Your task to perform on an android device: Open Chrome and go to settings Image 0: 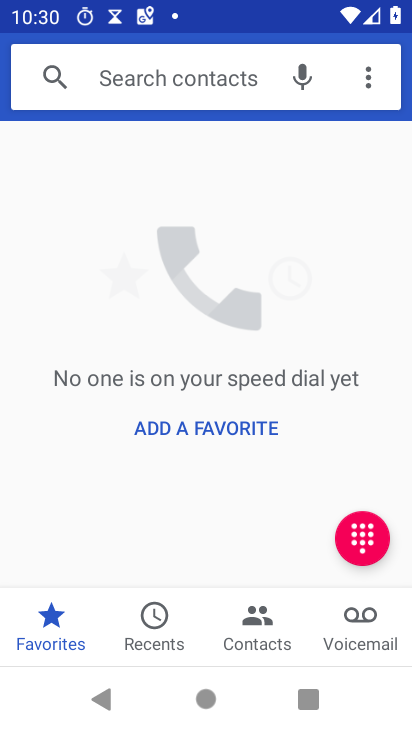
Step 0: press home button
Your task to perform on an android device: Open Chrome and go to settings Image 1: 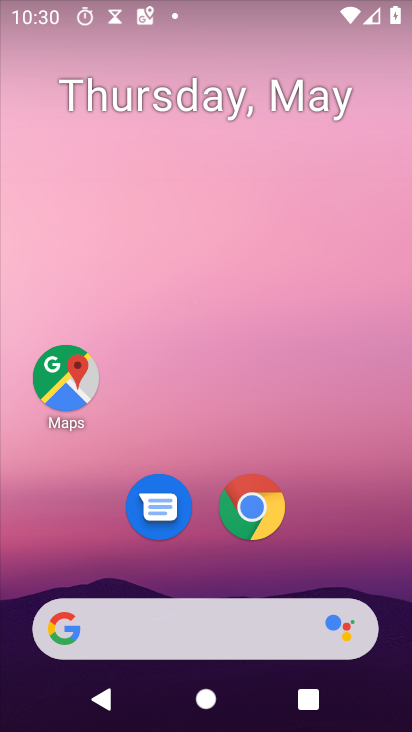
Step 1: click (249, 522)
Your task to perform on an android device: Open Chrome and go to settings Image 2: 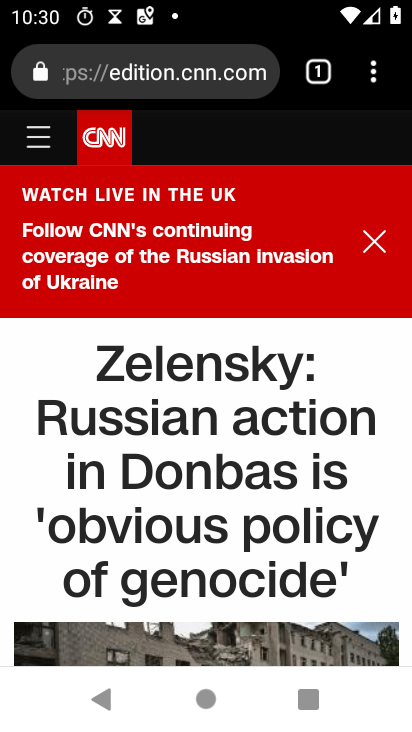
Step 2: click (377, 73)
Your task to perform on an android device: Open Chrome and go to settings Image 3: 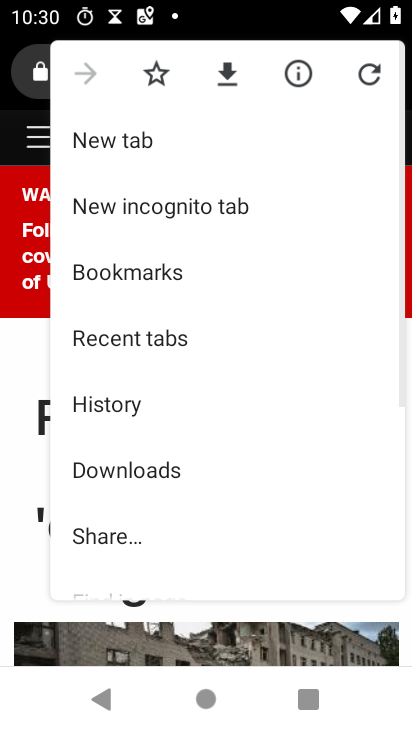
Step 3: drag from (231, 533) to (238, 157)
Your task to perform on an android device: Open Chrome and go to settings Image 4: 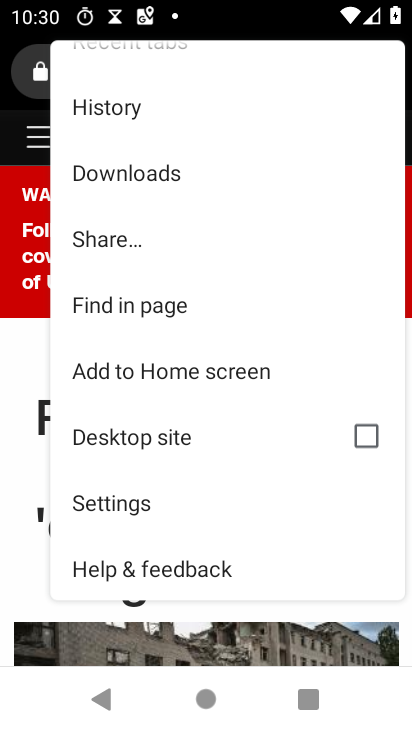
Step 4: click (134, 508)
Your task to perform on an android device: Open Chrome and go to settings Image 5: 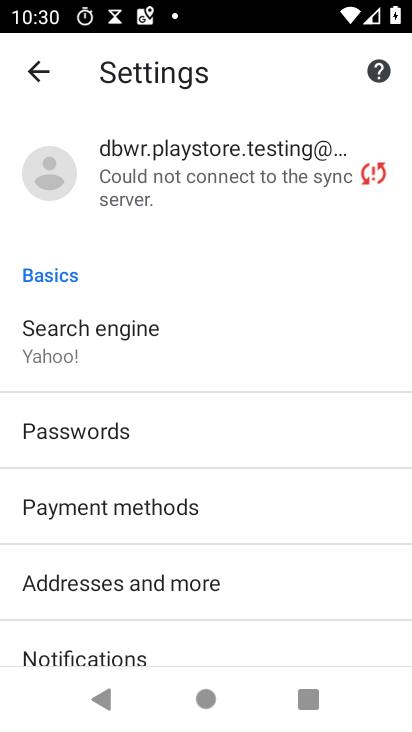
Step 5: task complete